Your task to perform on an android device: turn off picture-in-picture Image 0: 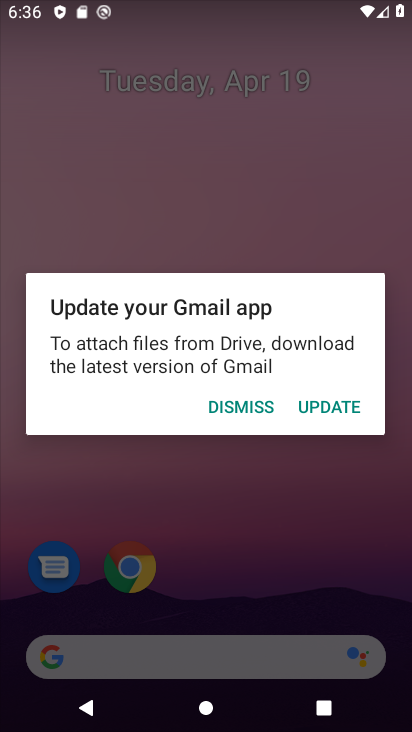
Step 0: press home button
Your task to perform on an android device: turn off picture-in-picture Image 1: 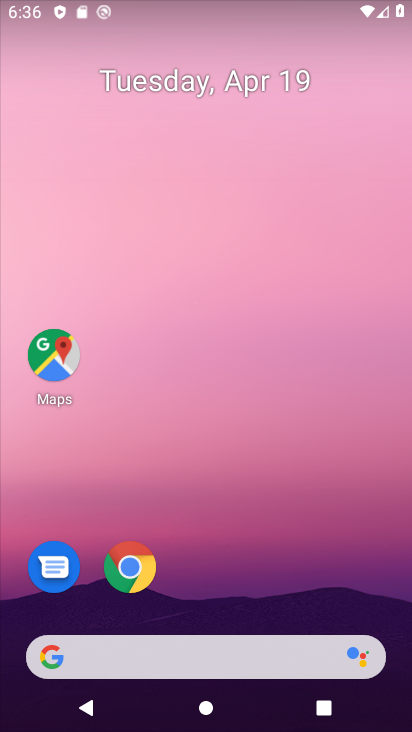
Step 1: click (149, 577)
Your task to perform on an android device: turn off picture-in-picture Image 2: 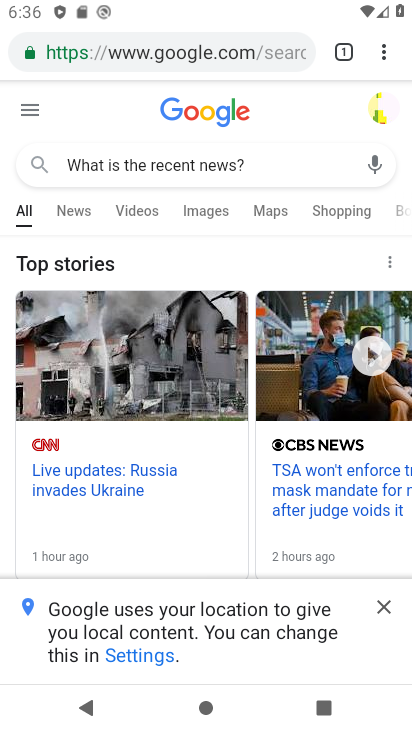
Step 2: drag from (383, 50) to (192, 572)
Your task to perform on an android device: turn off picture-in-picture Image 3: 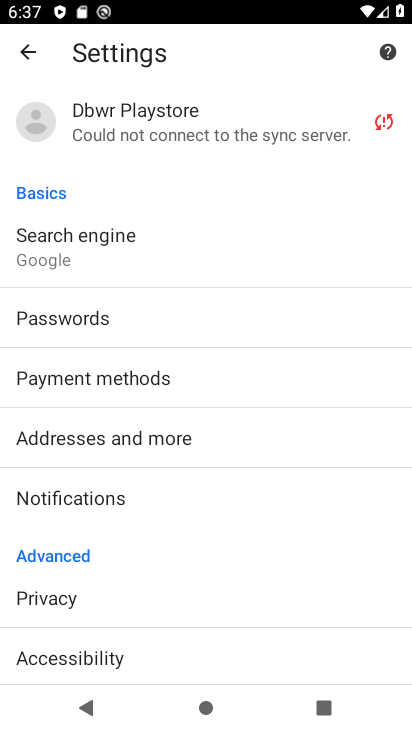
Step 3: drag from (115, 584) to (143, 420)
Your task to perform on an android device: turn off picture-in-picture Image 4: 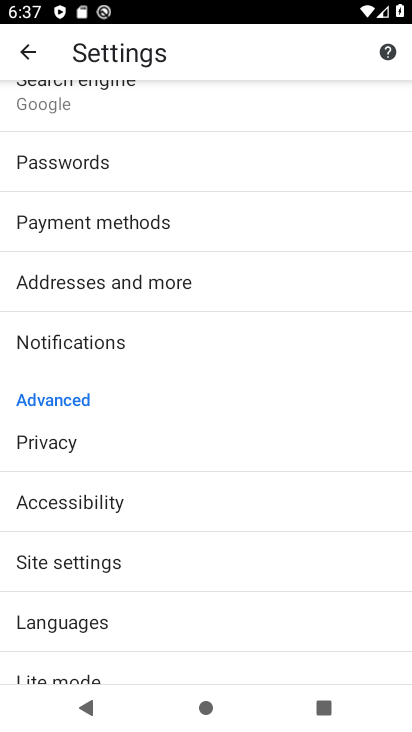
Step 4: press home button
Your task to perform on an android device: turn off picture-in-picture Image 5: 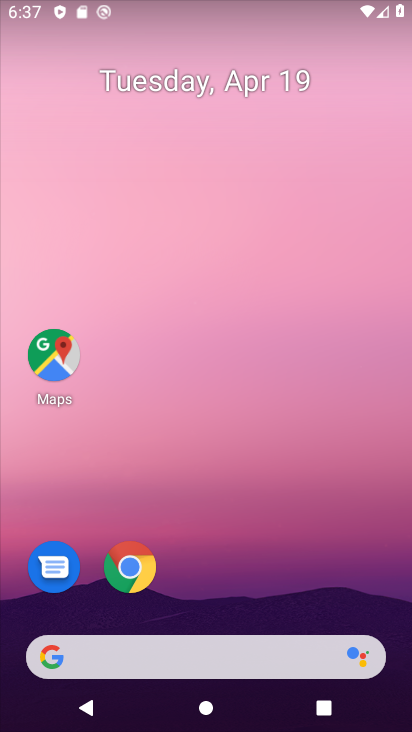
Step 5: click (124, 570)
Your task to perform on an android device: turn off picture-in-picture Image 6: 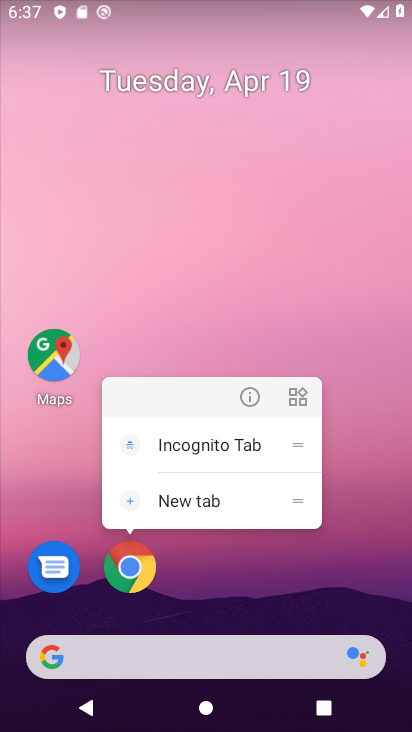
Step 6: click (258, 390)
Your task to perform on an android device: turn off picture-in-picture Image 7: 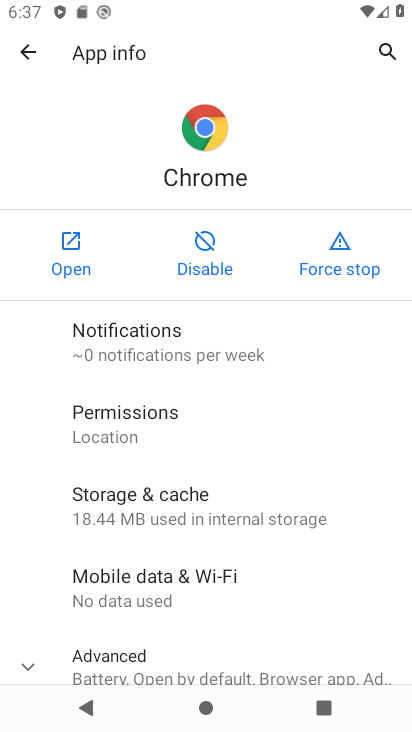
Step 7: drag from (172, 628) to (179, 410)
Your task to perform on an android device: turn off picture-in-picture Image 8: 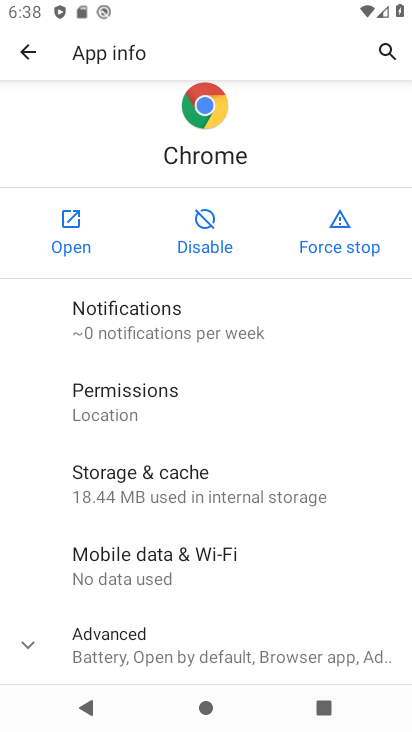
Step 8: click (151, 651)
Your task to perform on an android device: turn off picture-in-picture Image 9: 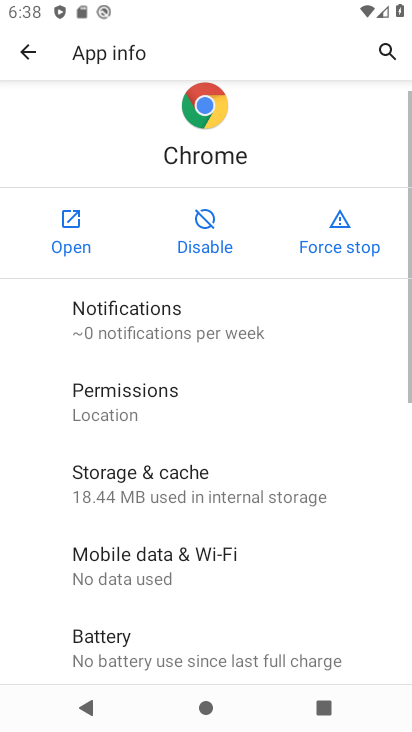
Step 9: drag from (209, 628) to (222, 278)
Your task to perform on an android device: turn off picture-in-picture Image 10: 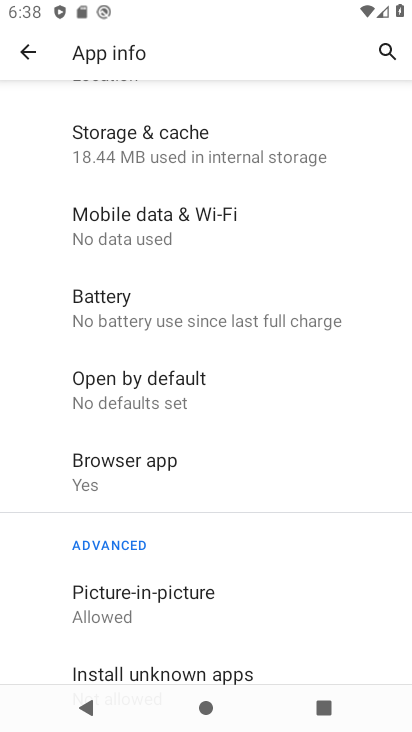
Step 10: drag from (188, 638) to (156, 174)
Your task to perform on an android device: turn off picture-in-picture Image 11: 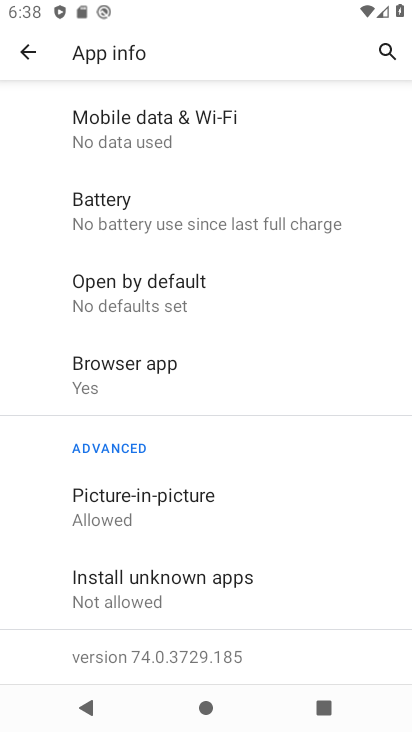
Step 11: click (160, 509)
Your task to perform on an android device: turn off picture-in-picture Image 12: 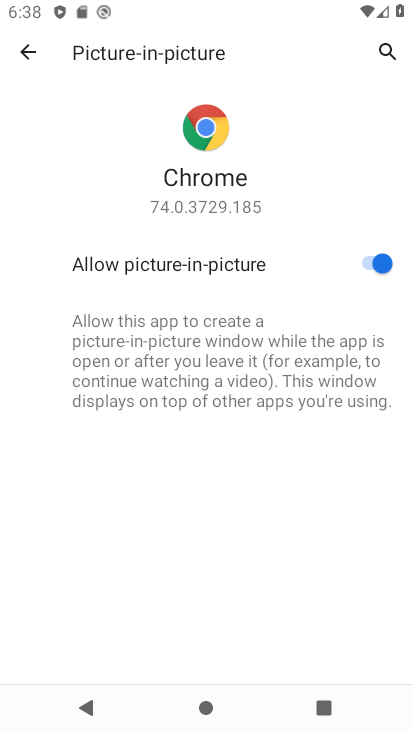
Step 12: click (372, 261)
Your task to perform on an android device: turn off picture-in-picture Image 13: 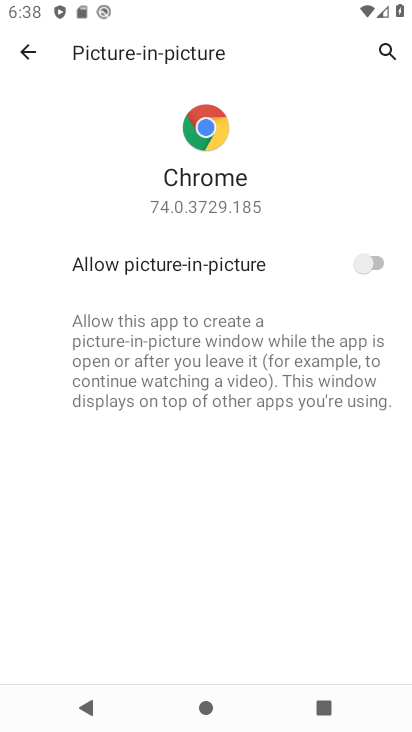
Step 13: task complete